Your task to perform on an android device: all mails in gmail Image 0: 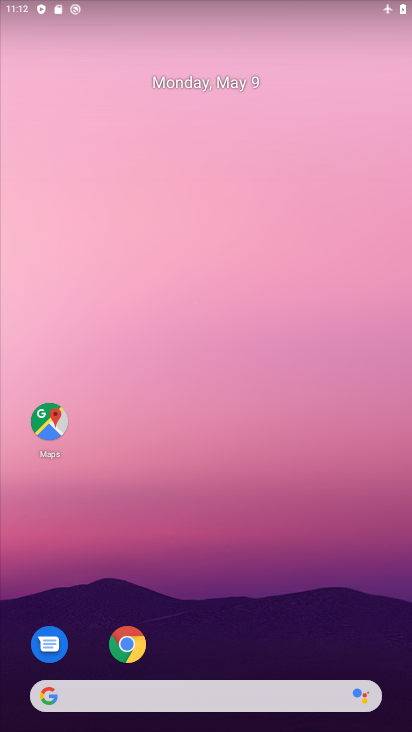
Step 0: drag from (240, 656) to (251, 210)
Your task to perform on an android device: all mails in gmail Image 1: 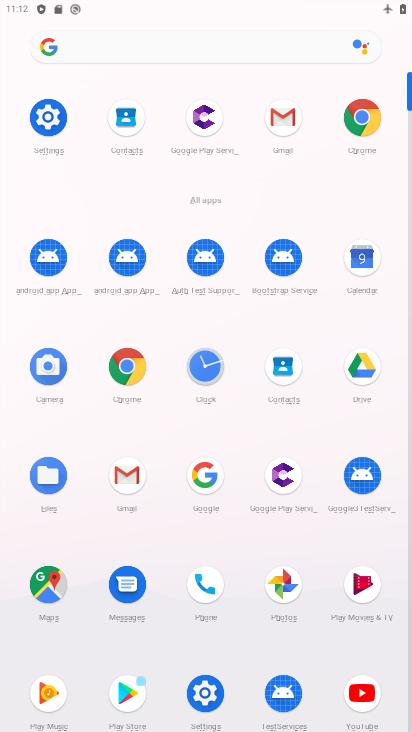
Step 1: click (302, 122)
Your task to perform on an android device: all mails in gmail Image 2: 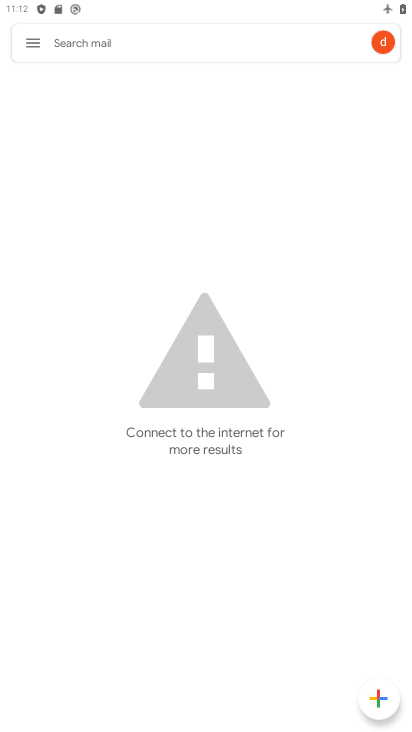
Step 2: click (26, 42)
Your task to perform on an android device: all mails in gmail Image 3: 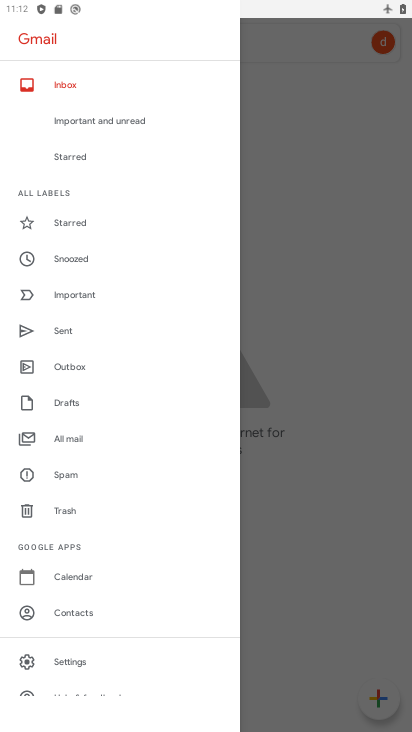
Step 3: drag from (88, 529) to (130, 197)
Your task to perform on an android device: all mails in gmail Image 4: 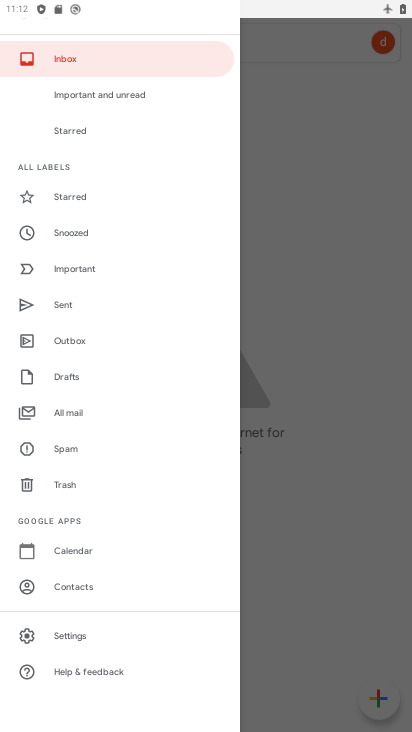
Step 4: click (69, 422)
Your task to perform on an android device: all mails in gmail Image 5: 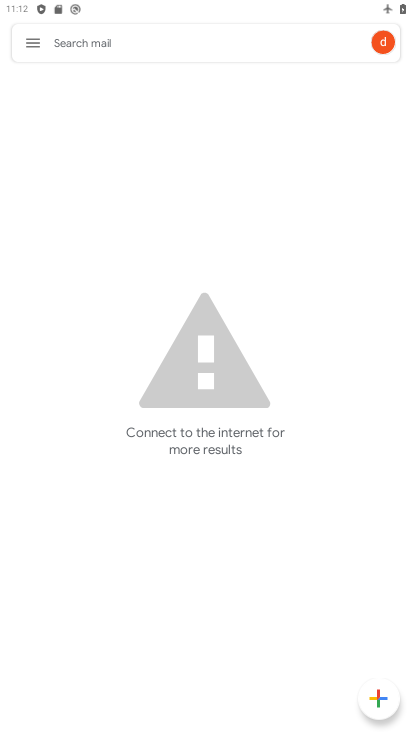
Step 5: task complete